Your task to perform on an android device: Open calendar and show me the fourth week of next month Image 0: 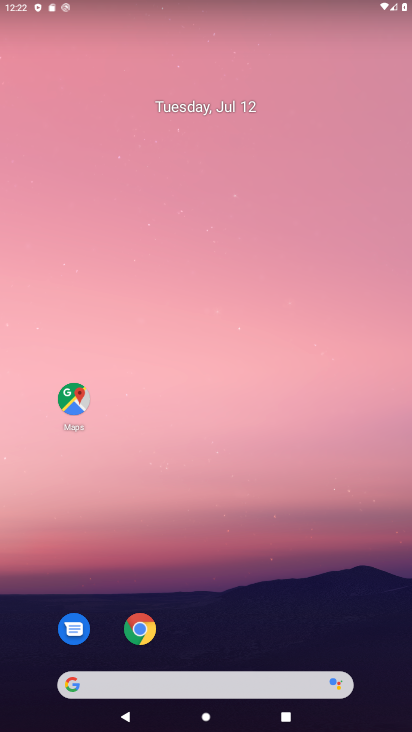
Step 0: drag from (188, 693) to (187, 56)
Your task to perform on an android device: Open calendar and show me the fourth week of next month Image 1: 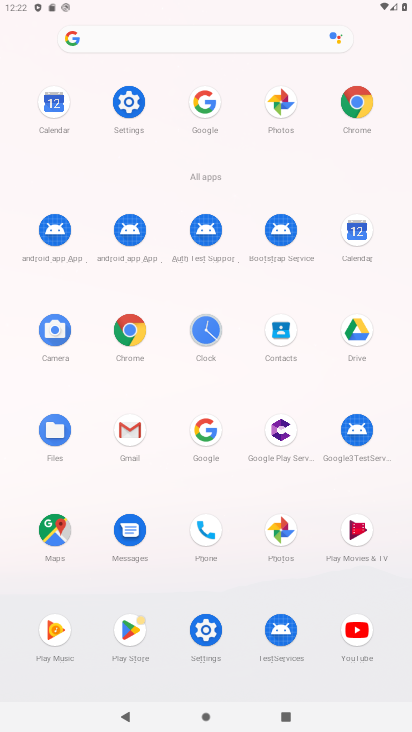
Step 1: click (363, 228)
Your task to perform on an android device: Open calendar and show me the fourth week of next month Image 2: 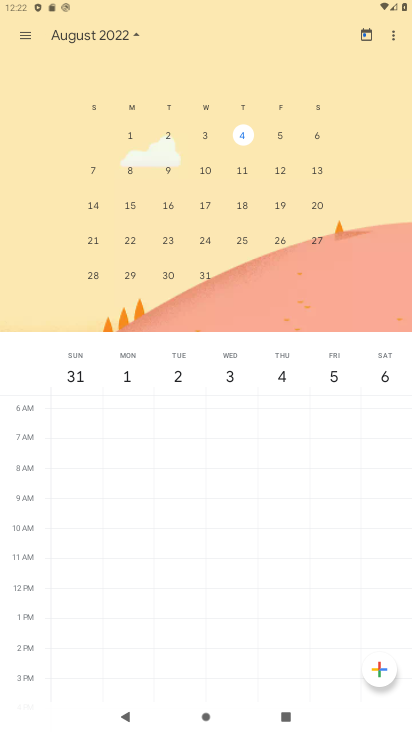
Step 2: click (210, 239)
Your task to perform on an android device: Open calendar and show me the fourth week of next month Image 3: 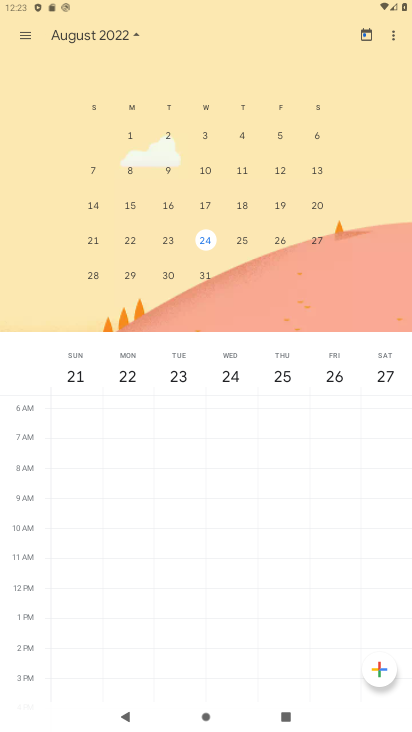
Step 3: task complete